Your task to perform on an android device: Open Google Chrome Image 0: 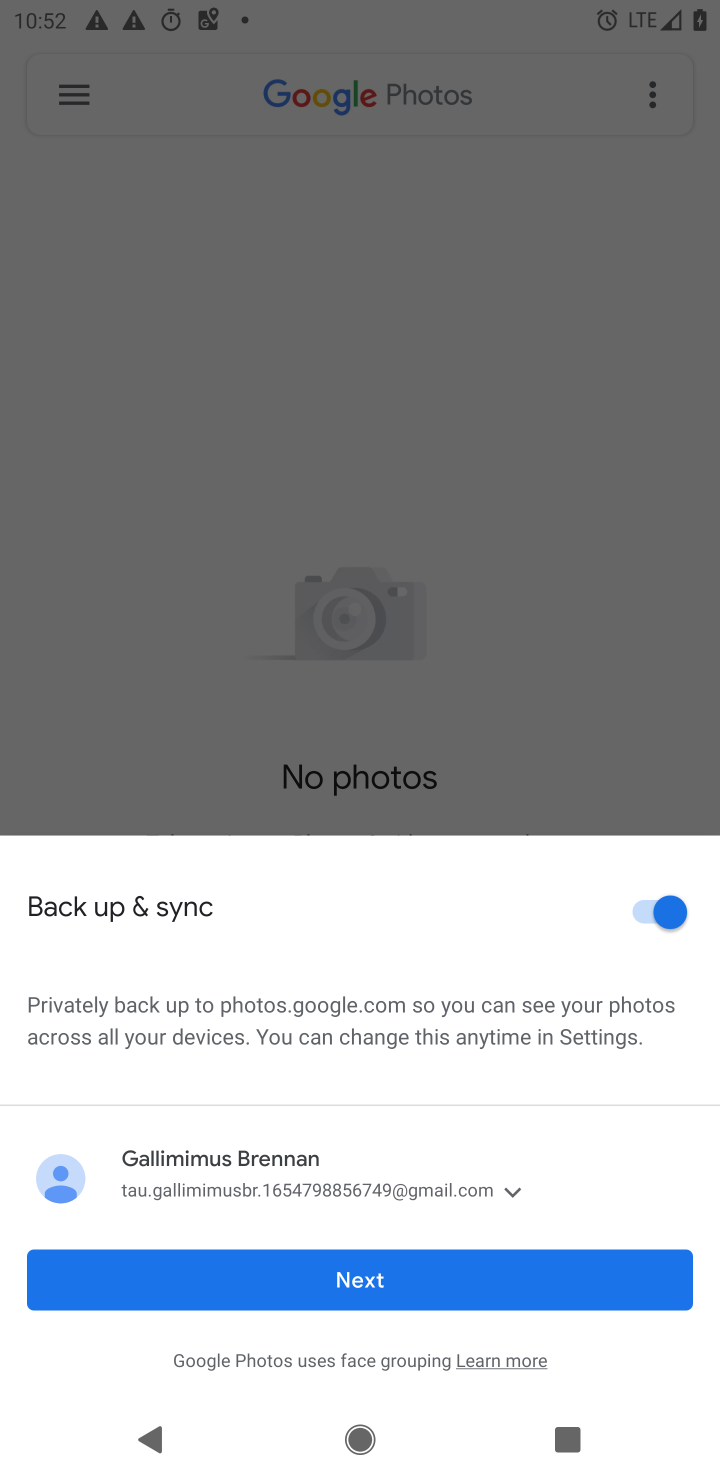
Step 0: click (457, 183)
Your task to perform on an android device: Open Google Chrome Image 1: 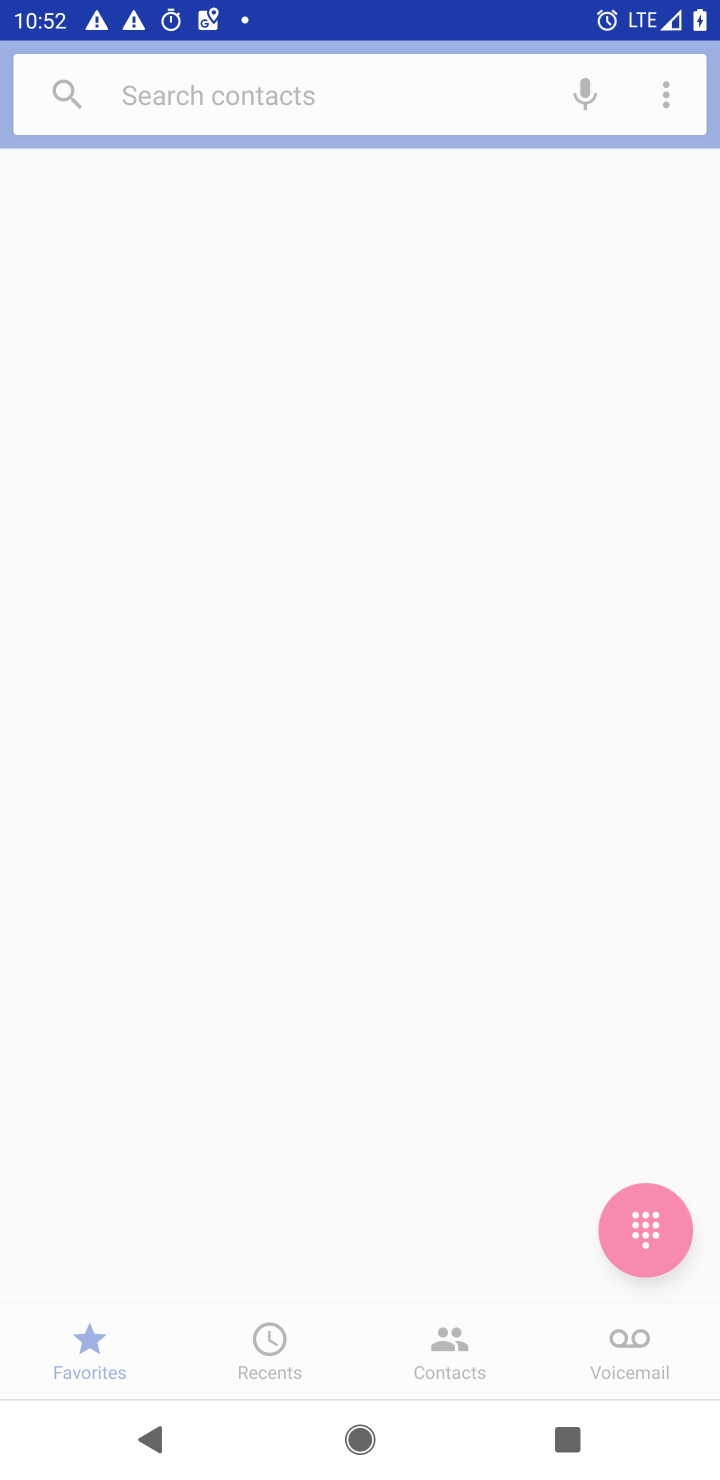
Step 1: click (346, 203)
Your task to perform on an android device: Open Google Chrome Image 2: 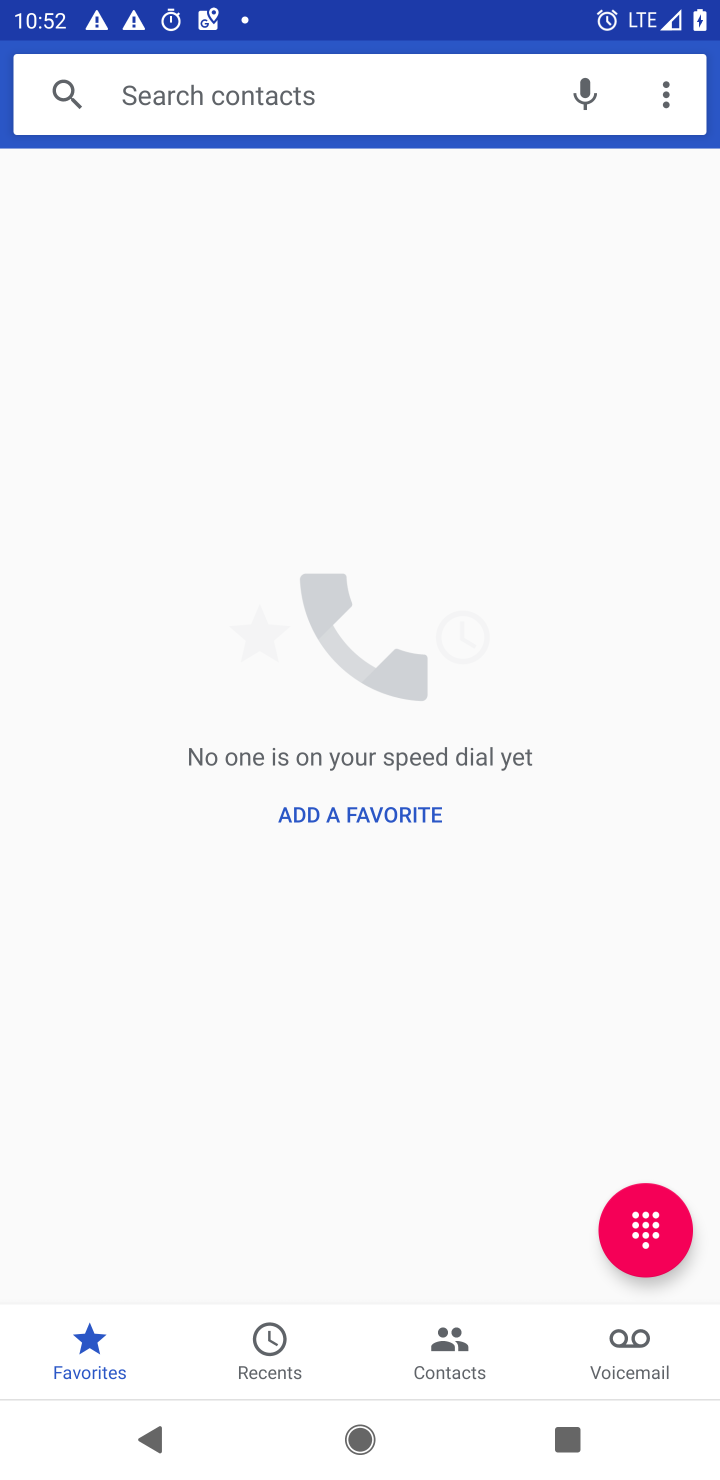
Step 2: press back button
Your task to perform on an android device: Open Google Chrome Image 3: 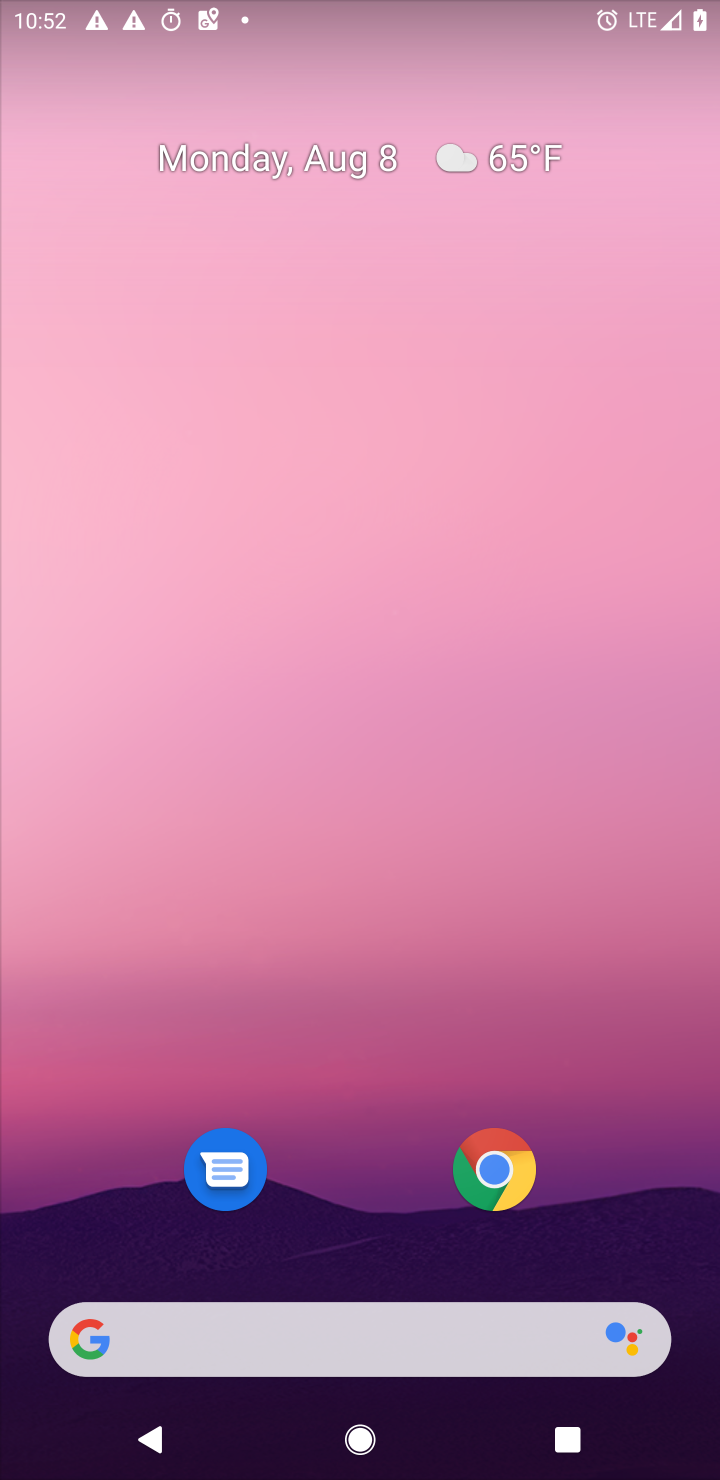
Step 3: click (491, 1185)
Your task to perform on an android device: Open Google Chrome Image 4: 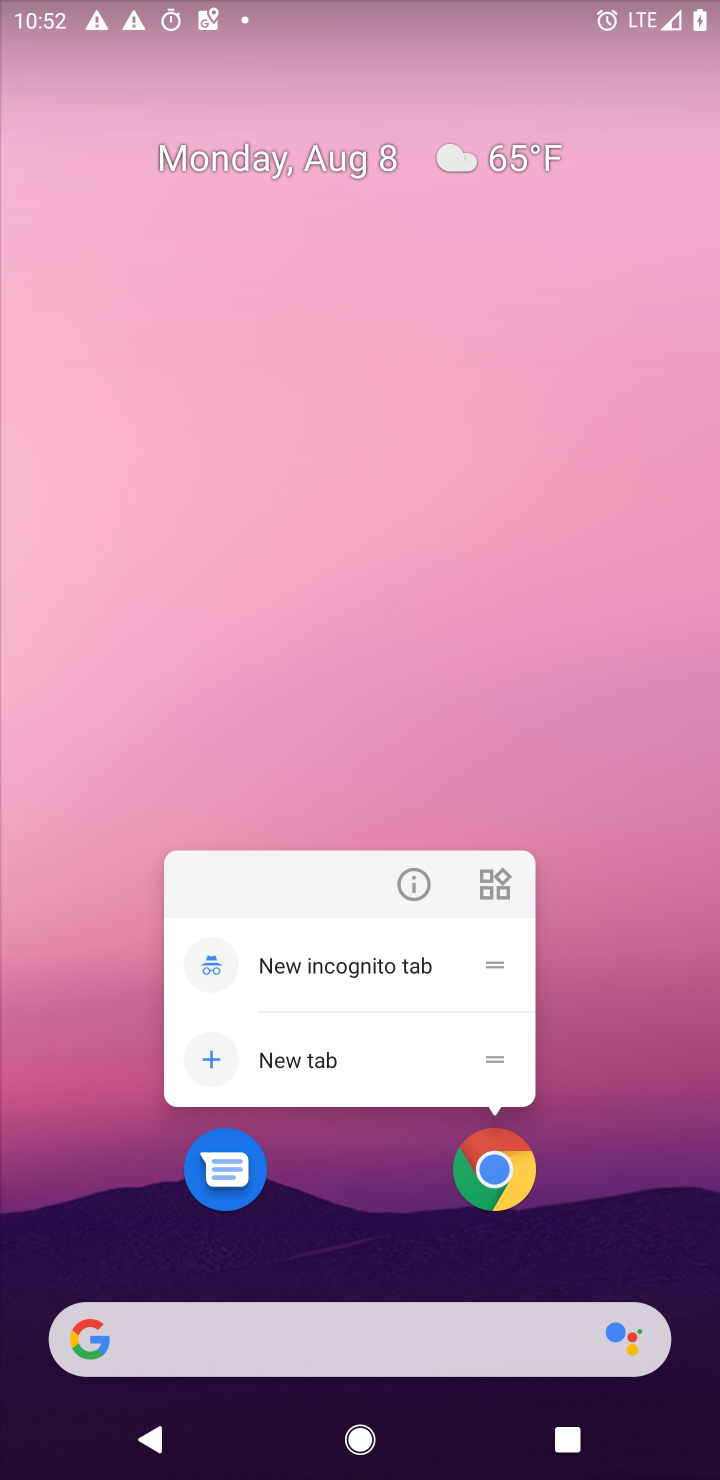
Step 4: click (489, 1185)
Your task to perform on an android device: Open Google Chrome Image 5: 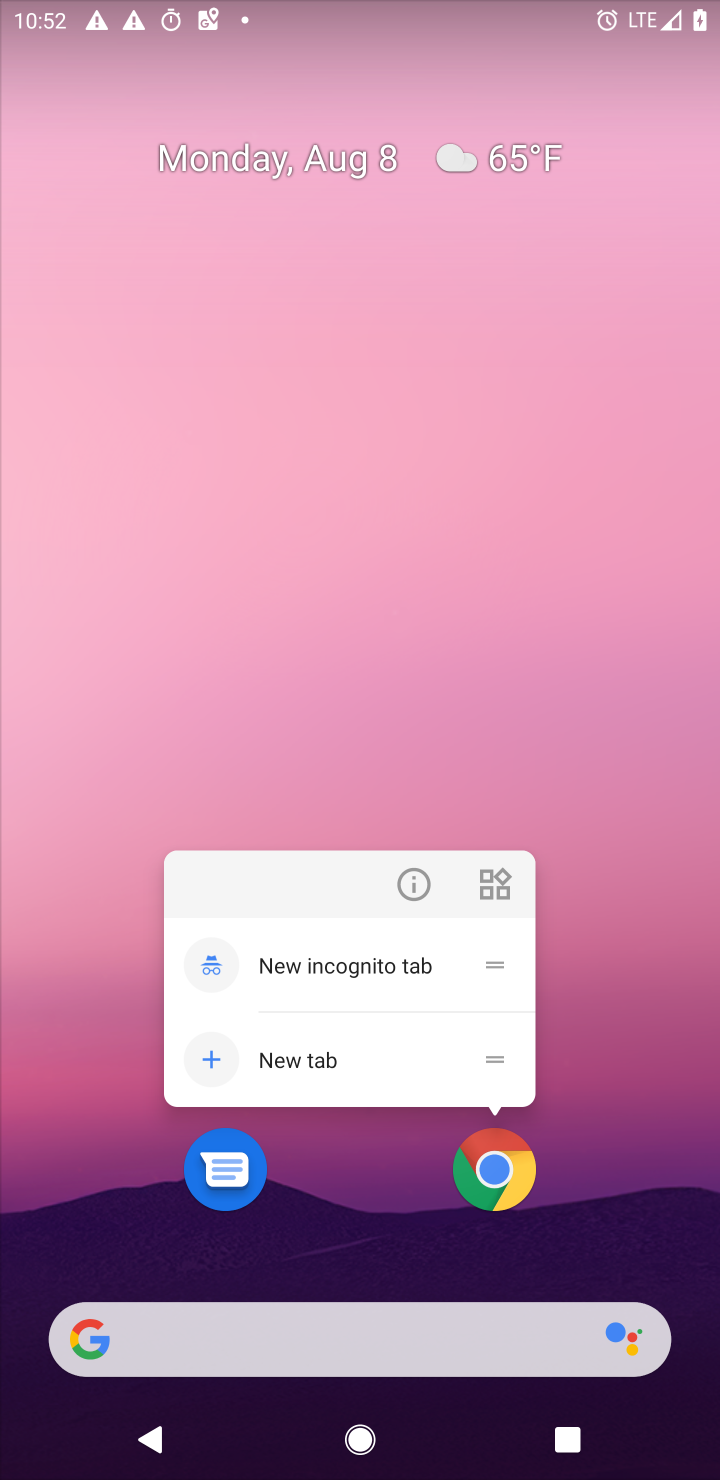
Step 5: click (501, 1191)
Your task to perform on an android device: Open Google Chrome Image 6: 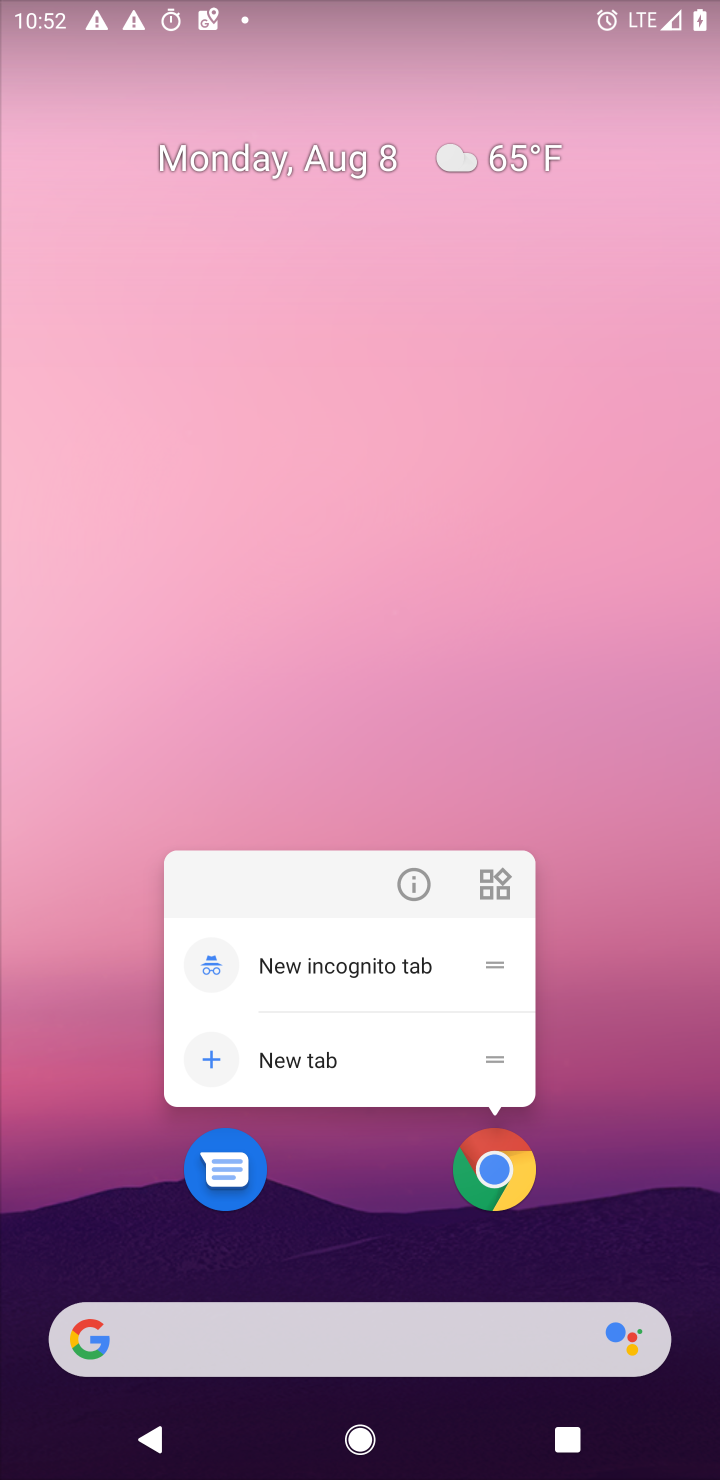
Step 6: click (513, 1161)
Your task to perform on an android device: Open Google Chrome Image 7: 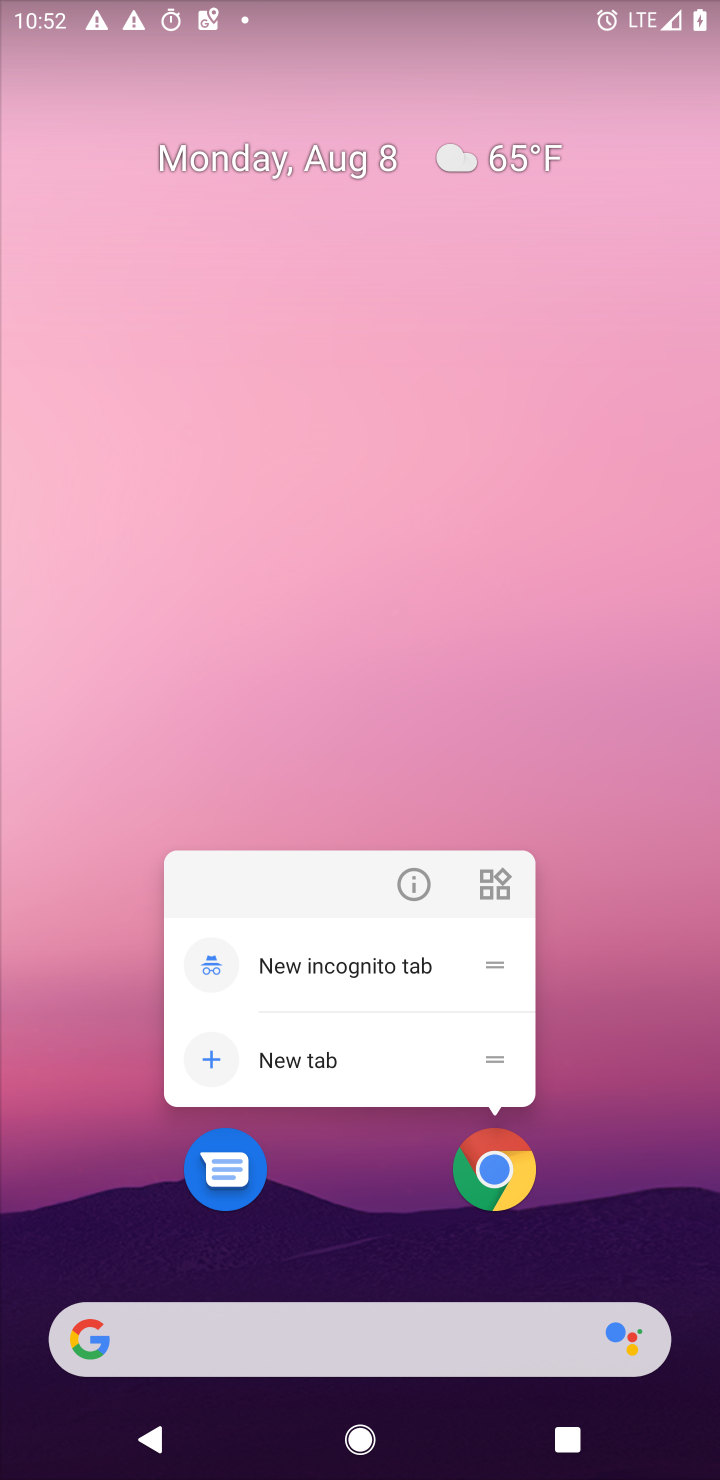
Step 7: click (494, 1170)
Your task to perform on an android device: Open Google Chrome Image 8: 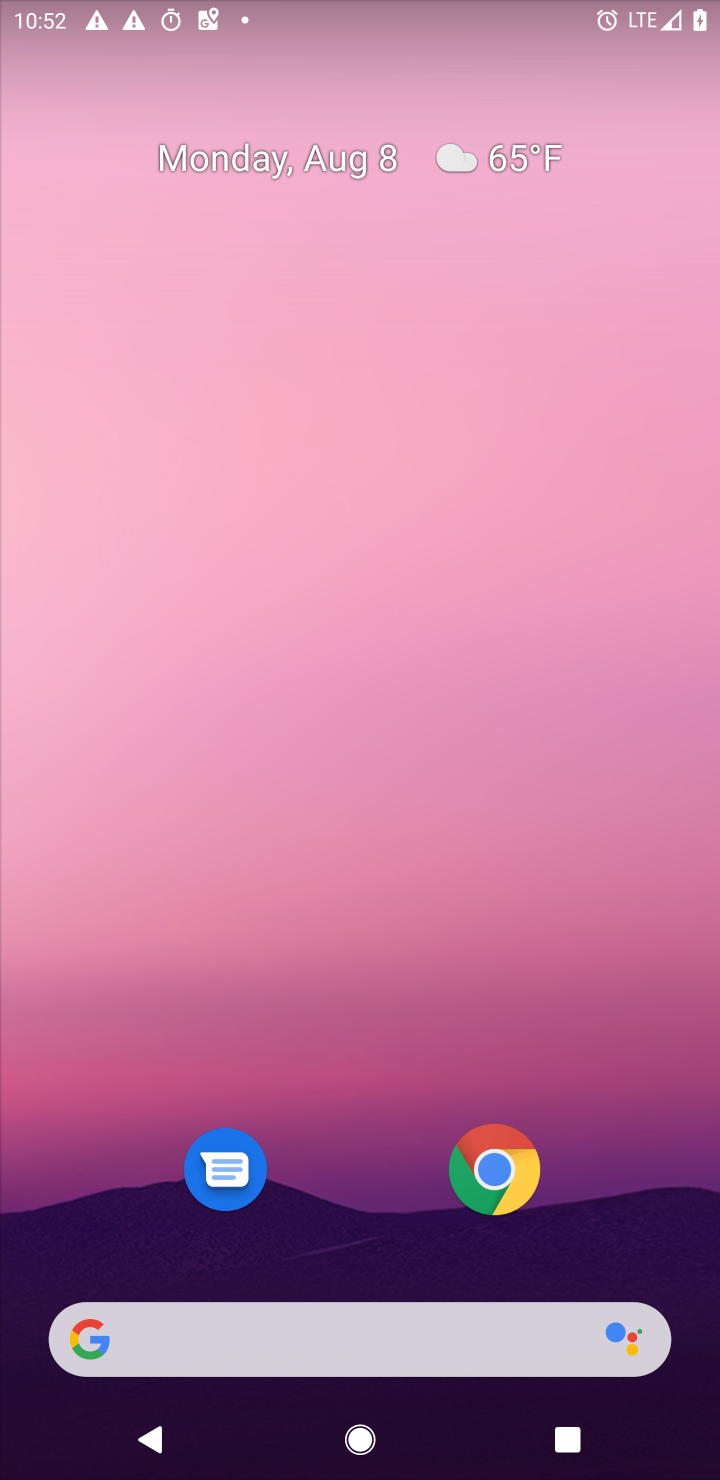
Step 8: click (502, 1183)
Your task to perform on an android device: Open Google Chrome Image 9: 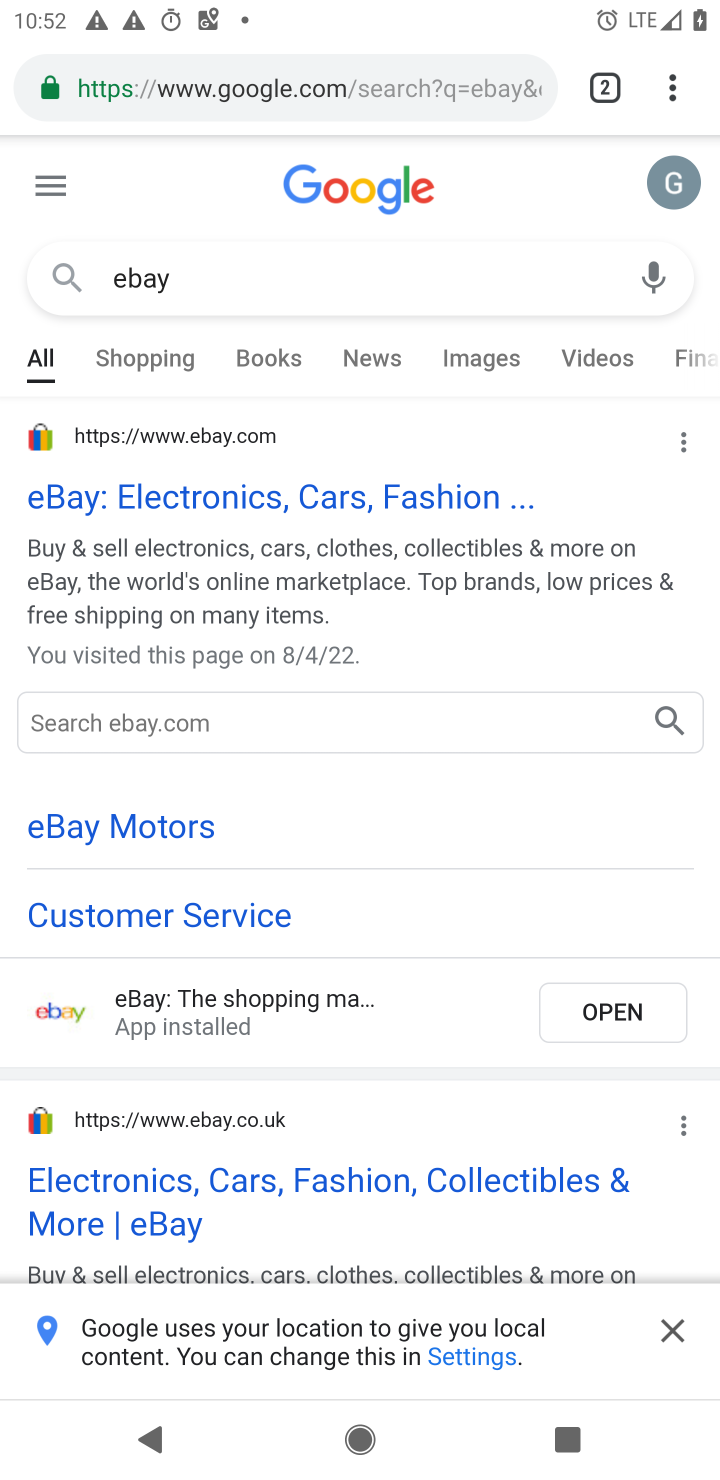
Step 9: task complete